Your task to perform on an android device: Turn on the flashlight Image 0: 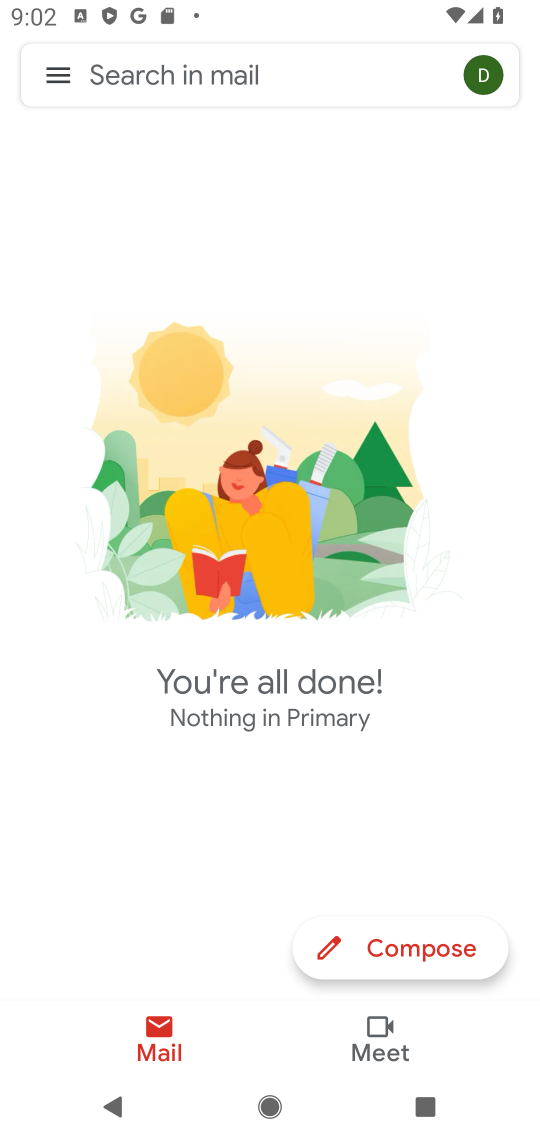
Step 0: press home button
Your task to perform on an android device: Turn on the flashlight Image 1: 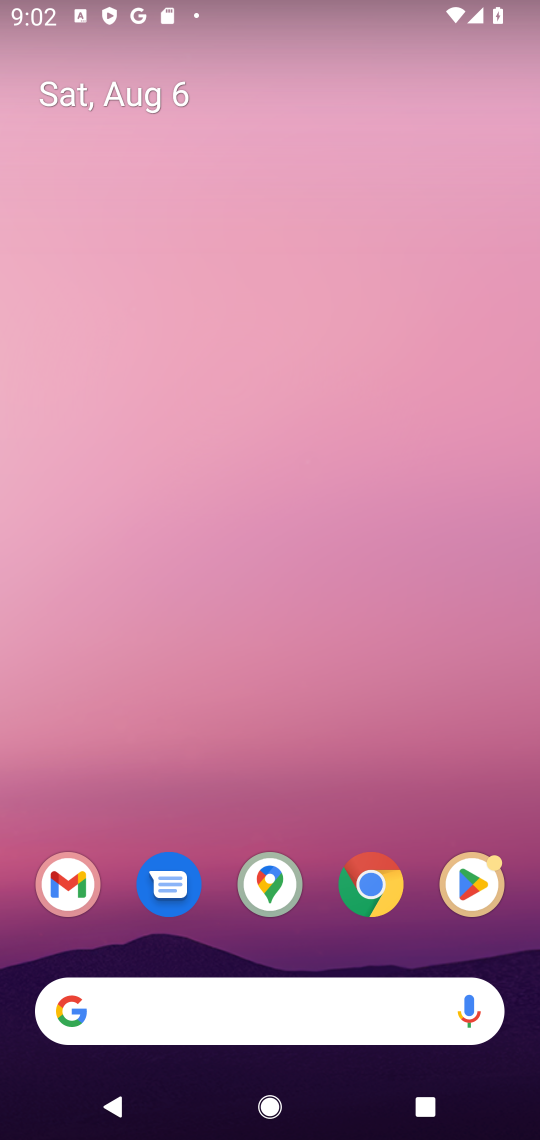
Step 1: drag from (297, 22) to (284, 968)
Your task to perform on an android device: Turn on the flashlight Image 2: 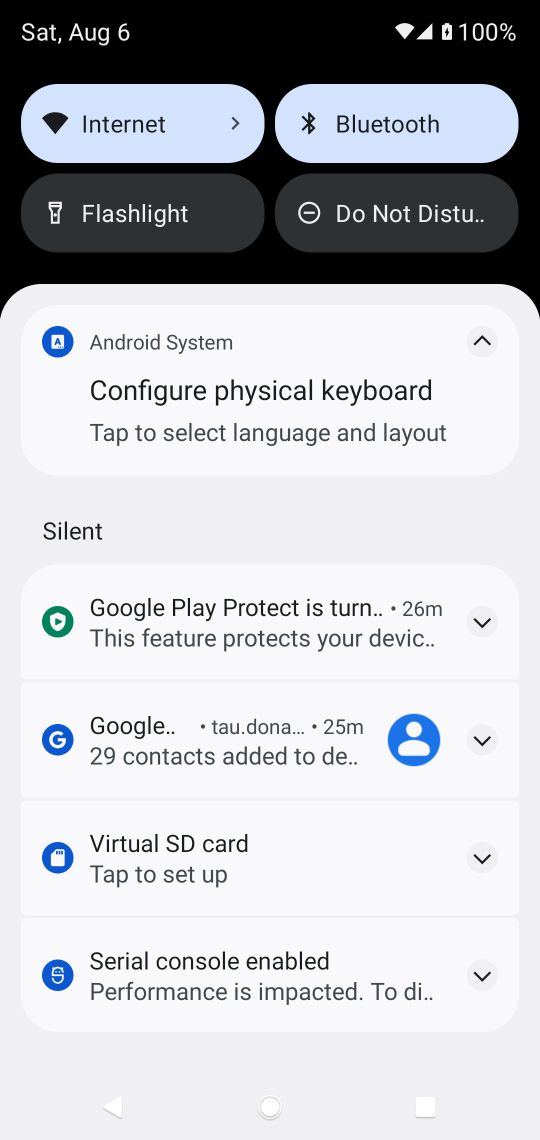
Step 2: click (107, 208)
Your task to perform on an android device: Turn on the flashlight Image 3: 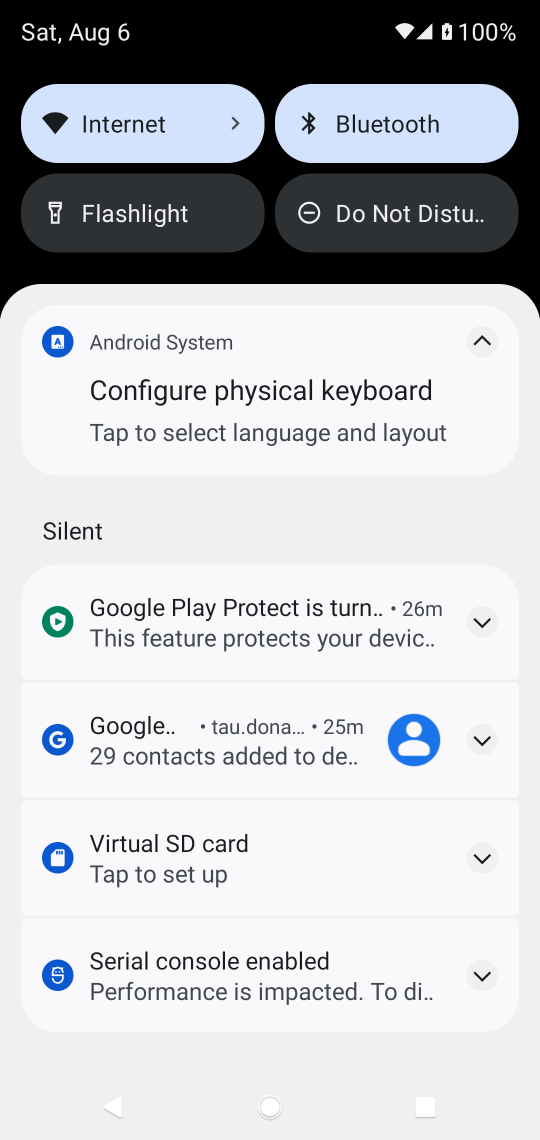
Step 3: click (60, 208)
Your task to perform on an android device: Turn on the flashlight Image 4: 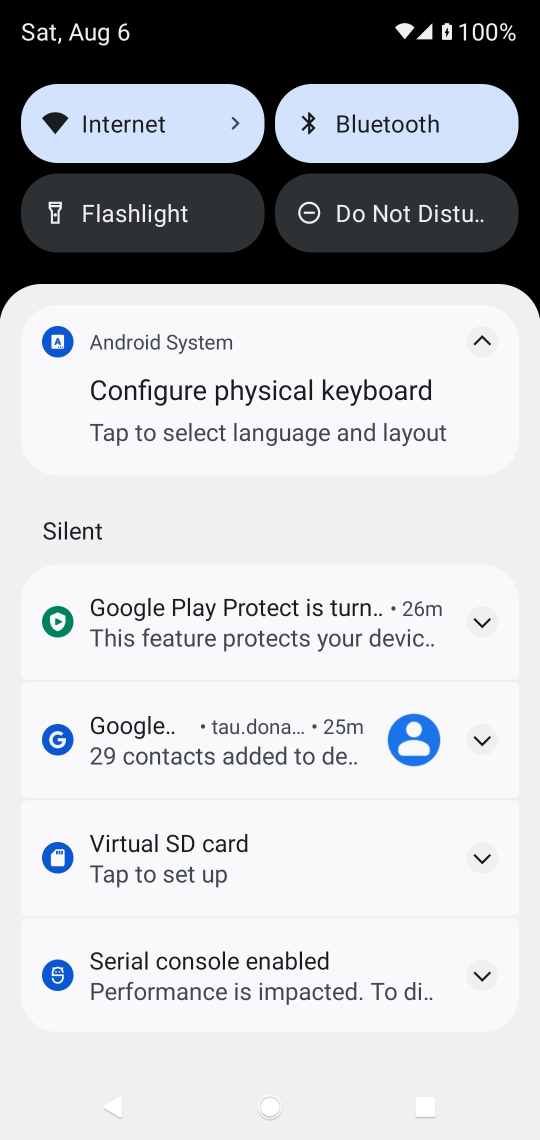
Step 4: task complete